Your task to perform on an android device: Open calendar and show me the first week of next month Image 0: 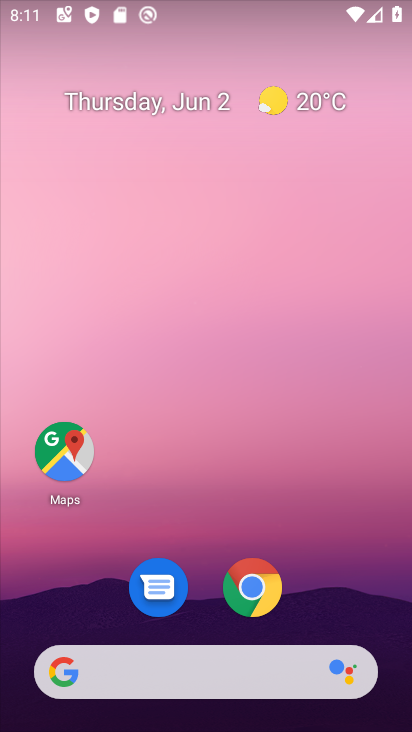
Step 0: click (143, 114)
Your task to perform on an android device: Open calendar and show me the first week of next month Image 1: 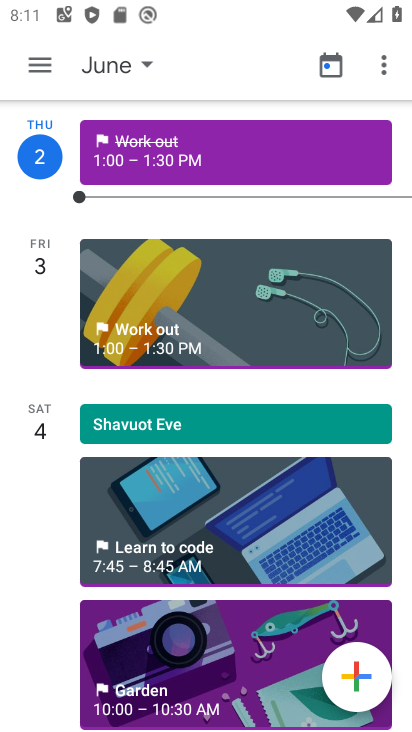
Step 1: click (123, 67)
Your task to perform on an android device: Open calendar and show me the first week of next month Image 2: 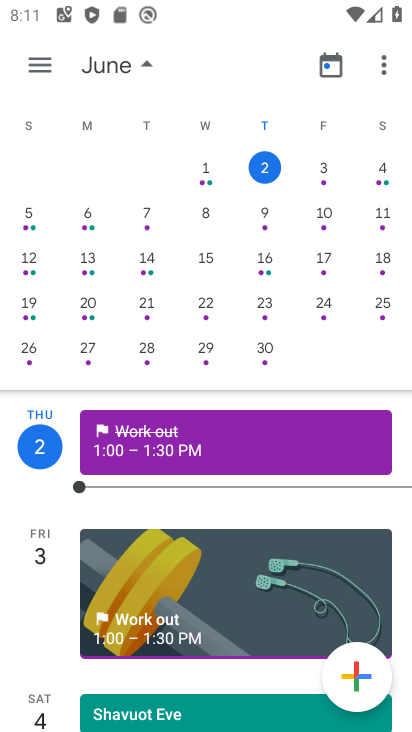
Step 2: task complete